Your task to perform on an android device: check the backup settings in the google photos Image 0: 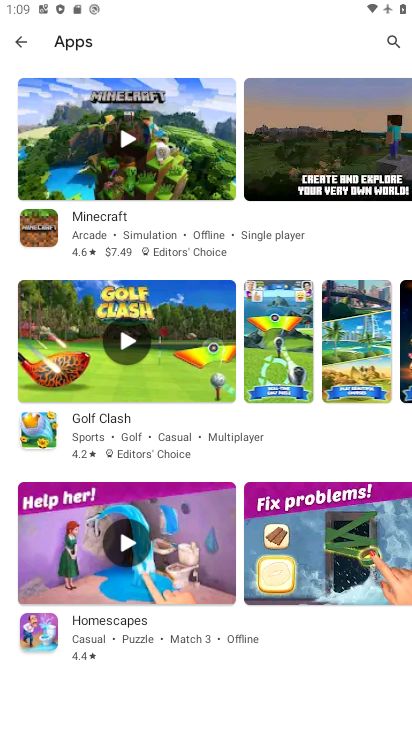
Step 0: press home button
Your task to perform on an android device: check the backup settings in the google photos Image 1: 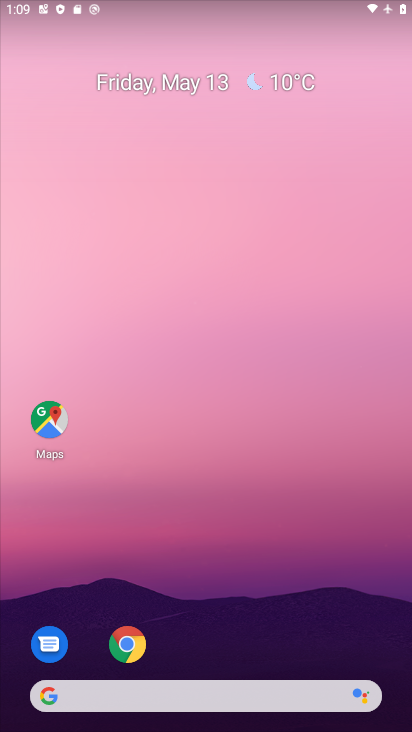
Step 1: drag from (216, 725) to (240, 143)
Your task to perform on an android device: check the backup settings in the google photos Image 2: 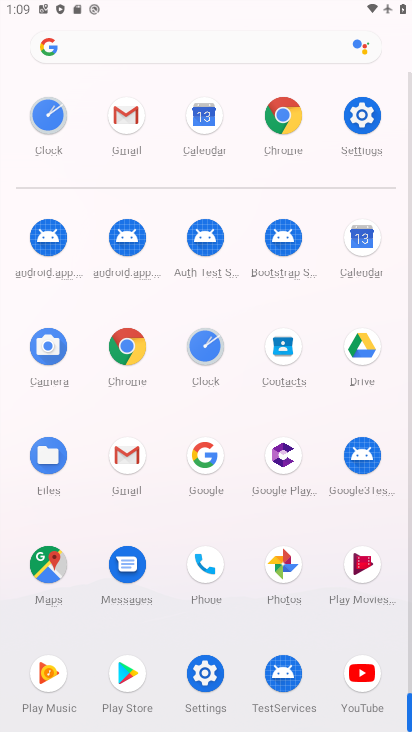
Step 2: click (280, 566)
Your task to perform on an android device: check the backup settings in the google photos Image 3: 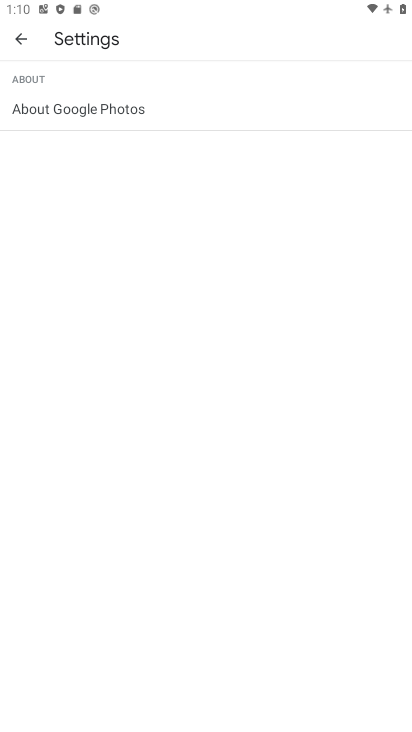
Step 3: click (22, 36)
Your task to perform on an android device: check the backup settings in the google photos Image 4: 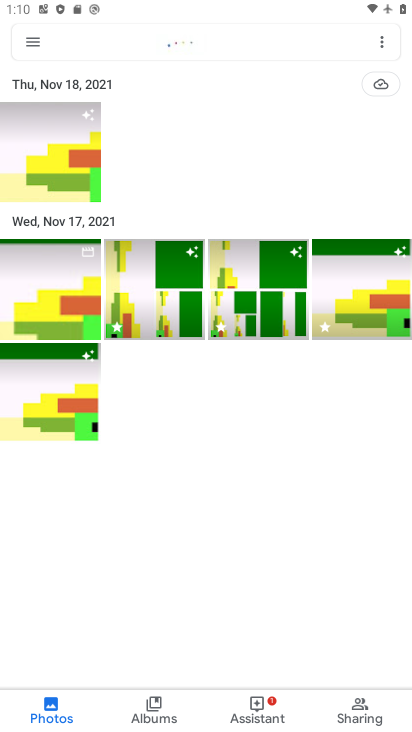
Step 4: click (32, 43)
Your task to perform on an android device: check the backup settings in the google photos Image 5: 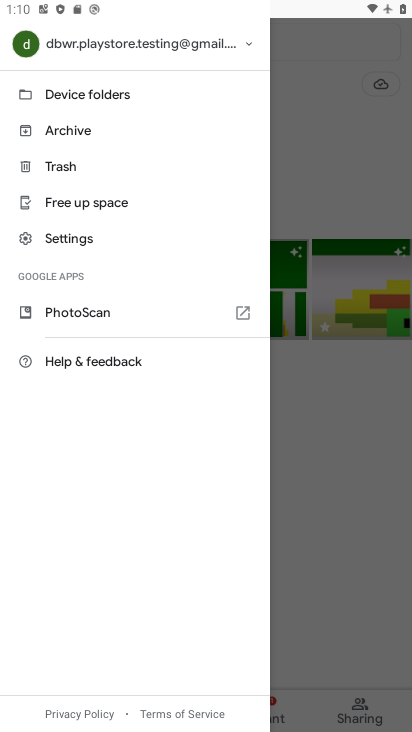
Step 5: click (70, 238)
Your task to perform on an android device: check the backup settings in the google photos Image 6: 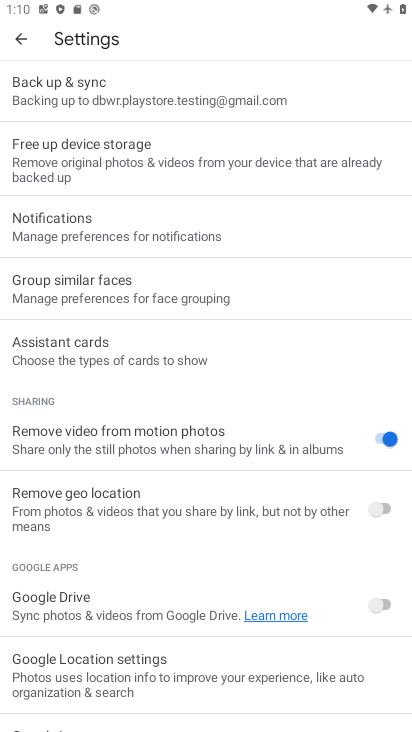
Step 6: click (86, 104)
Your task to perform on an android device: check the backup settings in the google photos Image 7: 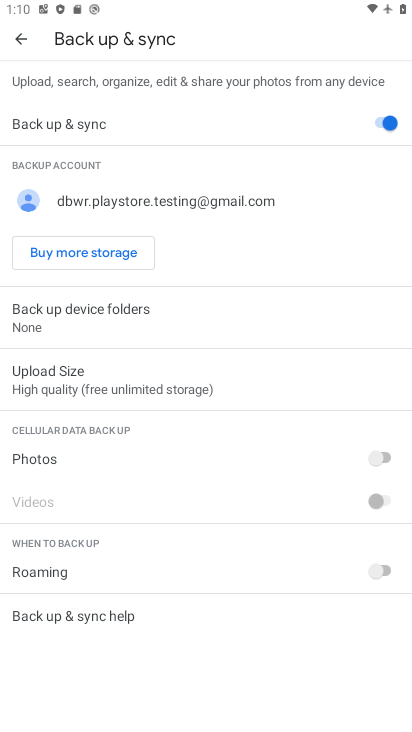
Step 7: task complete